Your task to perform on an android device: turn off notifications settings in the gmail app Image 0: 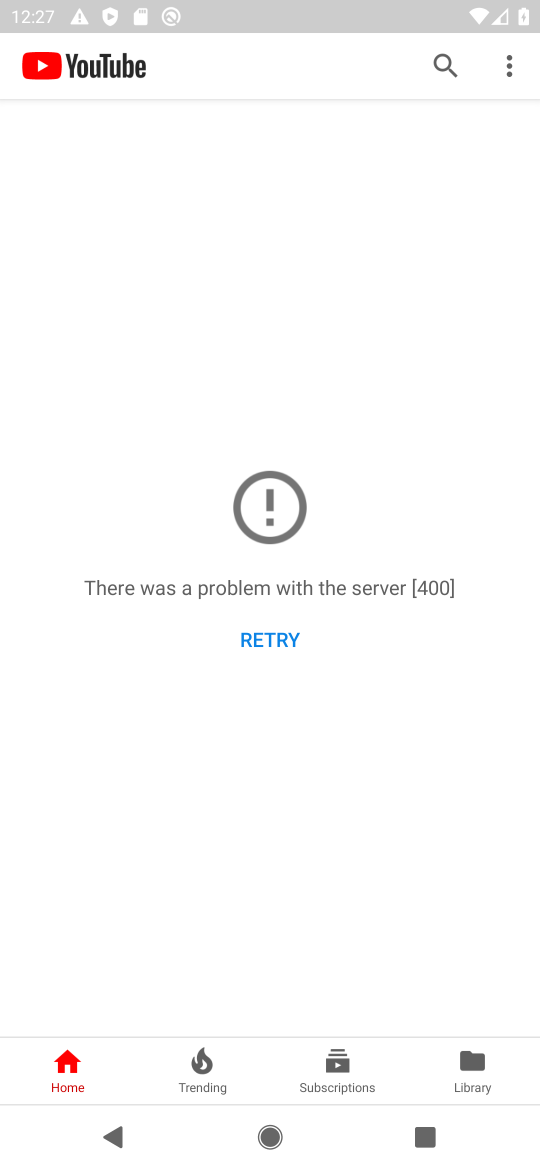
Step 0: press back button
Your task to perform on an android device: turn off notifications settings in the gmail app Image 1: 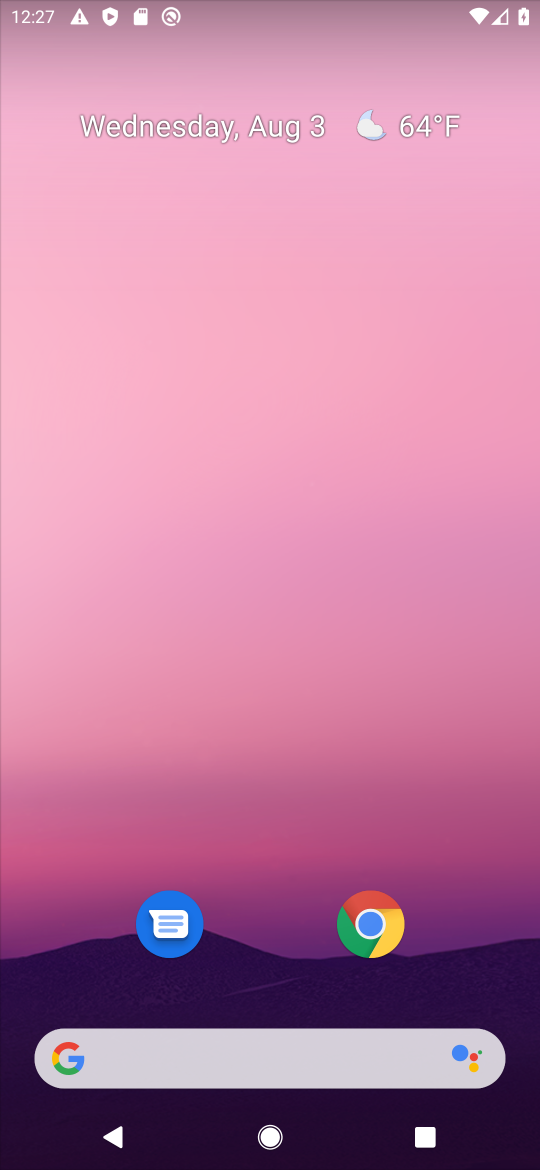
Step 1: drag from (270, 845) to (448, 23)
Your task to perform on an android device: turn off notifications settings in the gmail app Image 2: 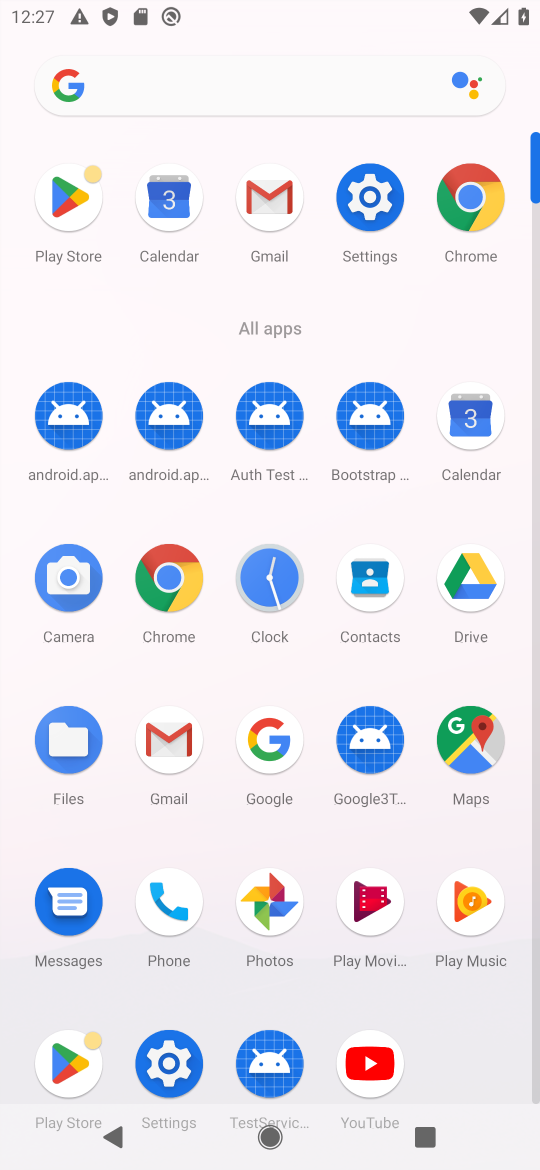
Step 2: click (155, 736)
Your task to perform on an android device: turn off notifications settings in the gmail app Image 3: 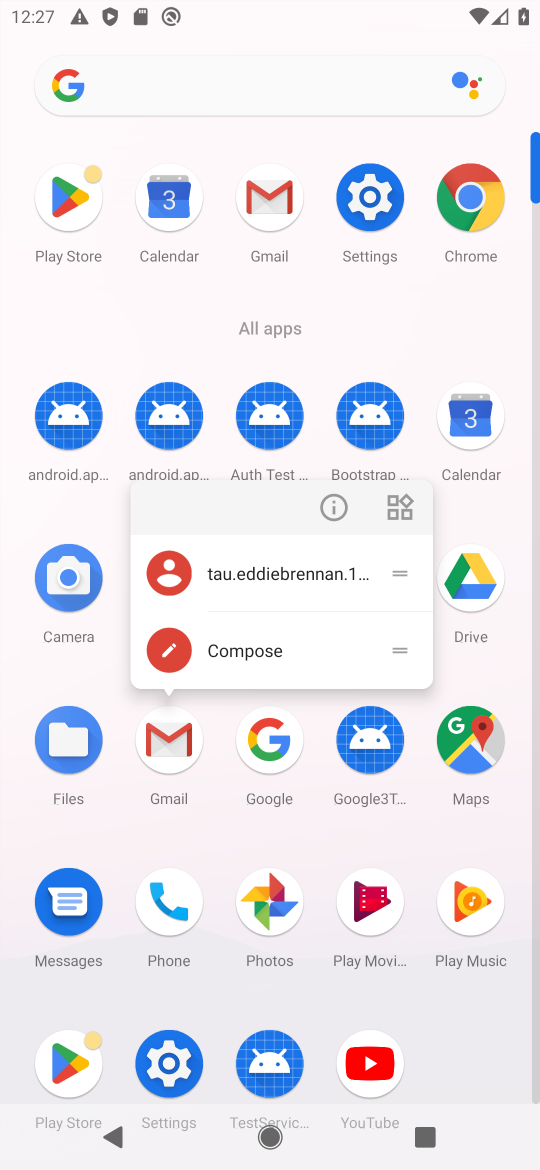
Step 3: click (322, 508)
Your task to perform on an android device: turn off notifications settings in the gmail app Image 4: 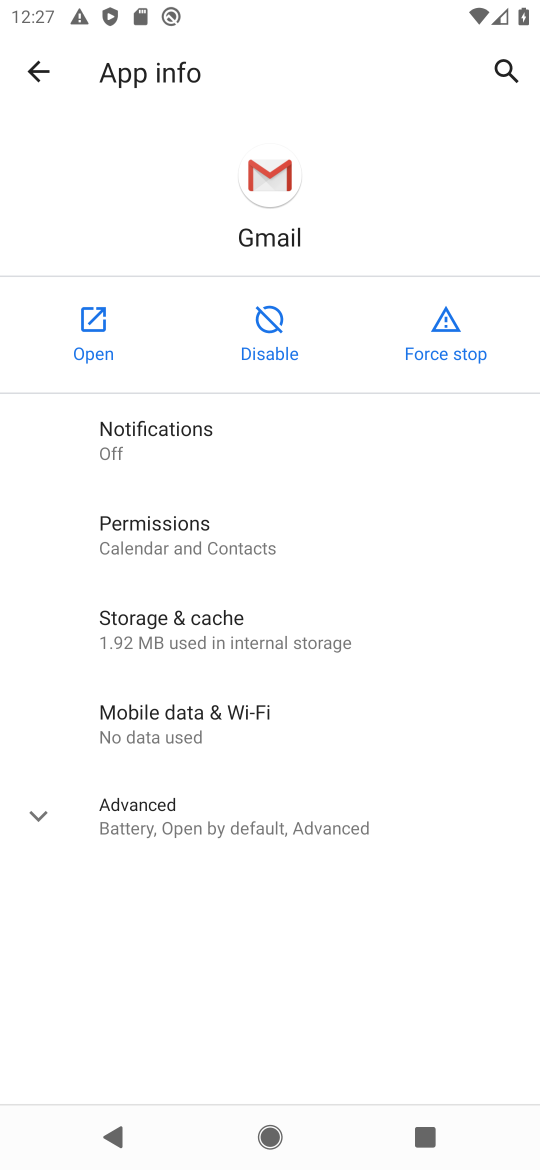
Step 4: click (233, 432)
Your task to perform on an android device: turn off notifications settings in the gmail app Image 5: 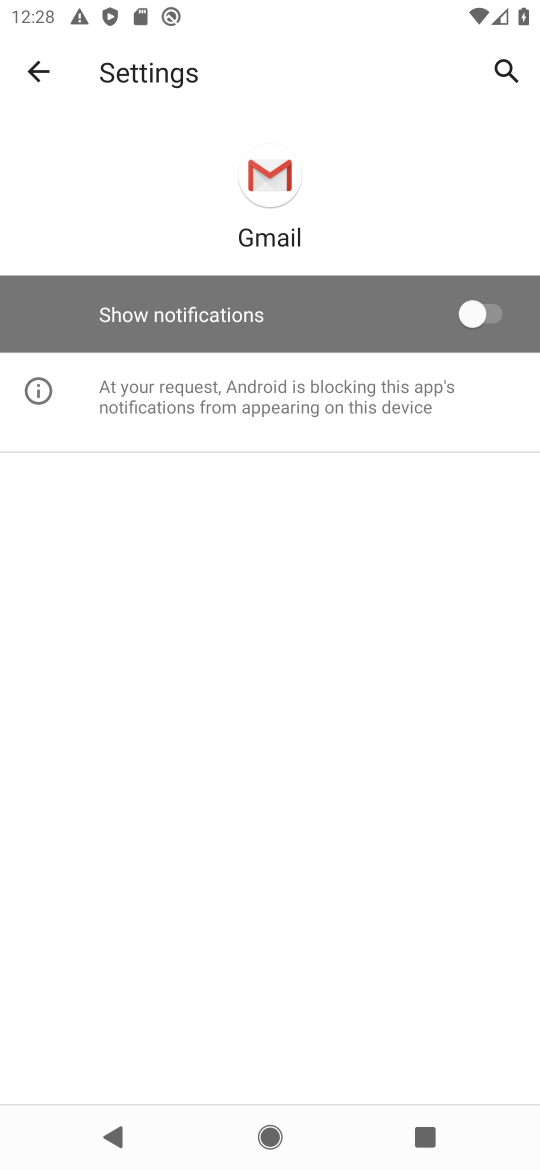
Step 5: task complete